Your task to perform on an android device: What is the news today? Image 0: 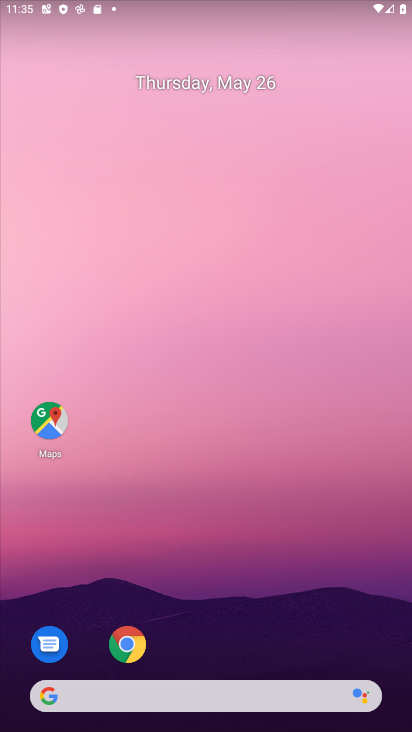
Step 0: drag from (379, 634) to (273, 36)
Your task to perform on an android device: What is the news today? Image 1: 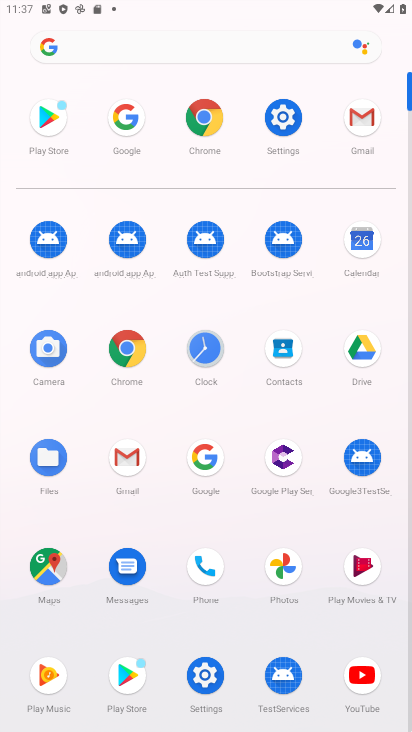
Step 1: click (195, 468)
Your task to perform on an android device: What is the news today? Image 2: 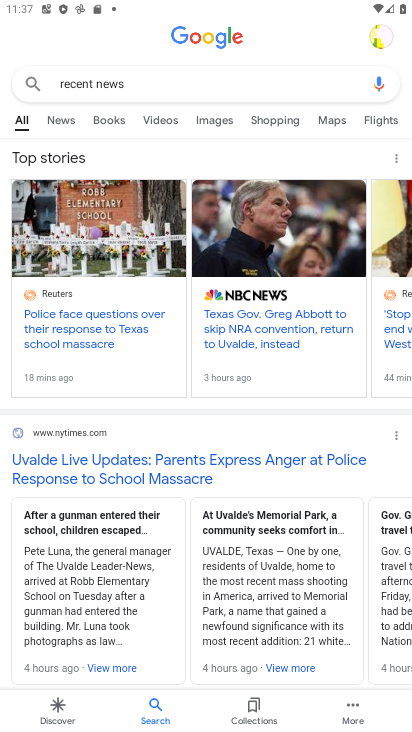
Step 2: press back button
Your task to perform on an android device: What is the news today? Image 3: 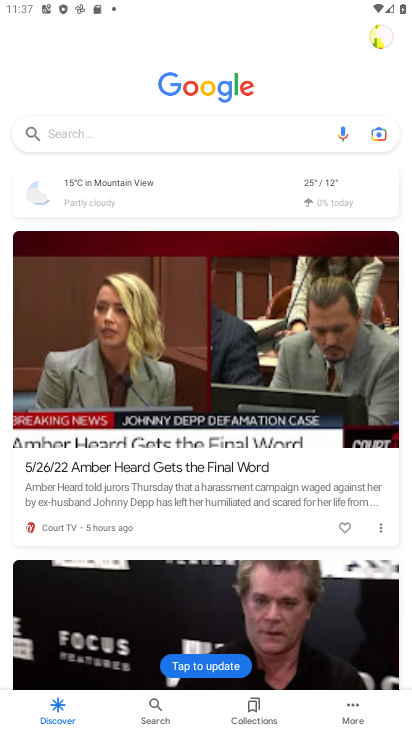
Step 3: click (133, 145)
Your task to perform on an android device: What is the news today? Image 4: 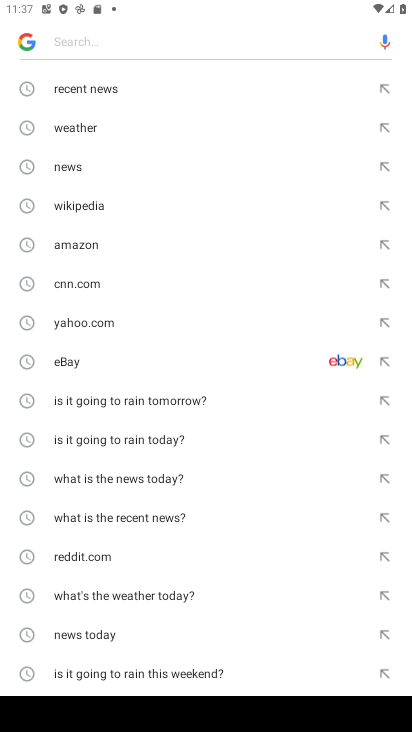
Step 4: click (114, 165)
Your task to perform on an android device: What is the news today? Image 5: 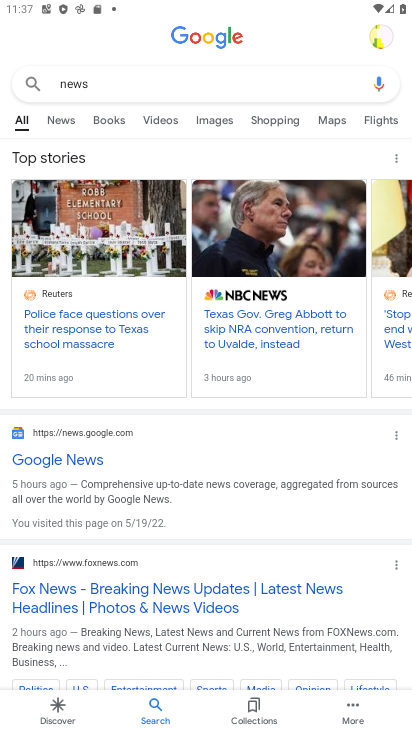
Step 5: task complete